Your task to perform on an android device: uninstall "PlayWell" Image 0: 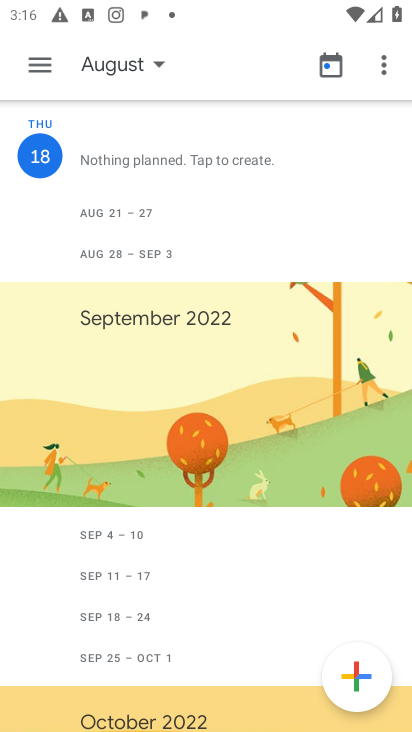
Step 0: press home button
Your task to perform on an android device: uninstall "PlayWell" Image 1: 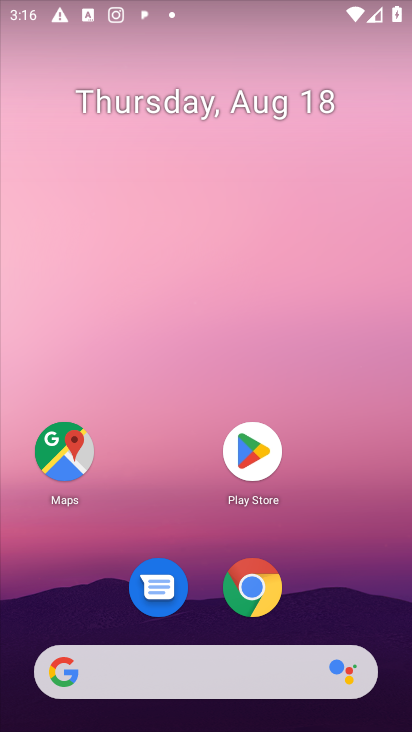
Step 1: click (251, 461)
Your task to perform on an android device: uninstall "PlayWell" Image 2: 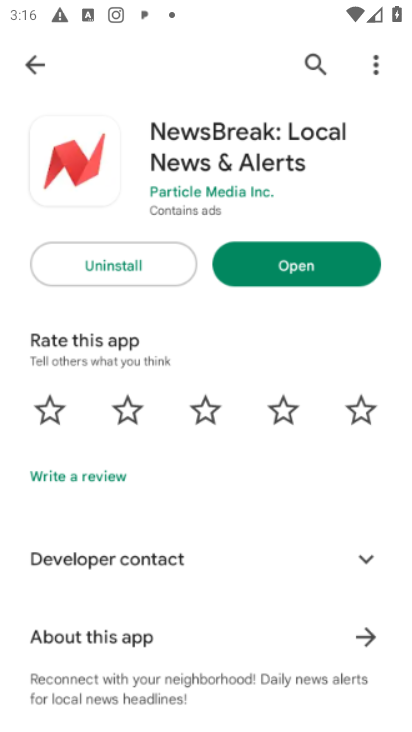
Step 2: click (251, 462)
Your task to perform on an android device: uninstall "PlayWell" Image 3: 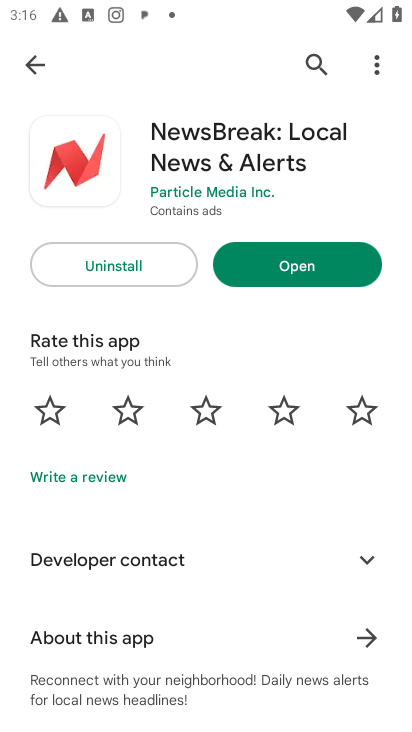
Step 3: click (319, 56)
Your task to perform on an android device: uninstall "PlayWell" Image 4: 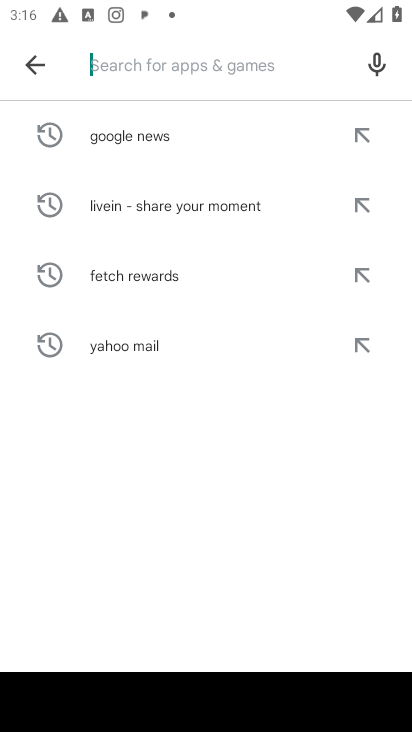
Step 4: type "PlayWell"
Your task to perform on an android device: uninstall "PlayWell" Image 5: 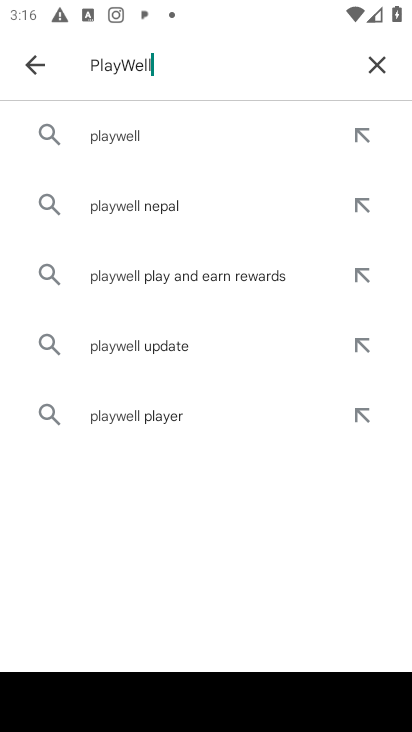
Step 5: click (134, 135)
Your task to perform on an android device: uninstall "PlayWell" Image 6: 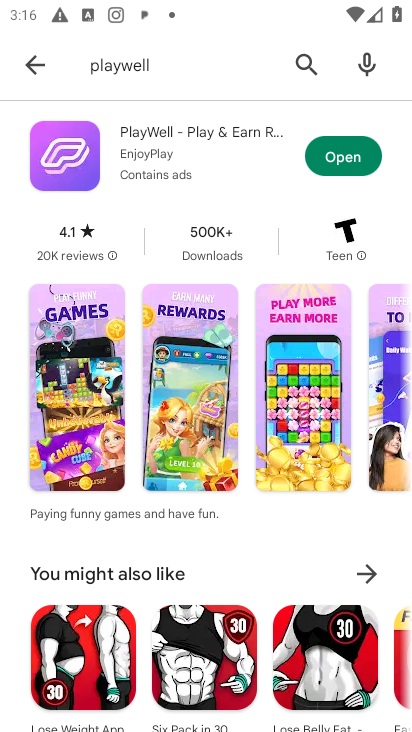
Step 6: click (155, 159)
Your task to perform on an android device: uninstall "PlayWell" Image 7: 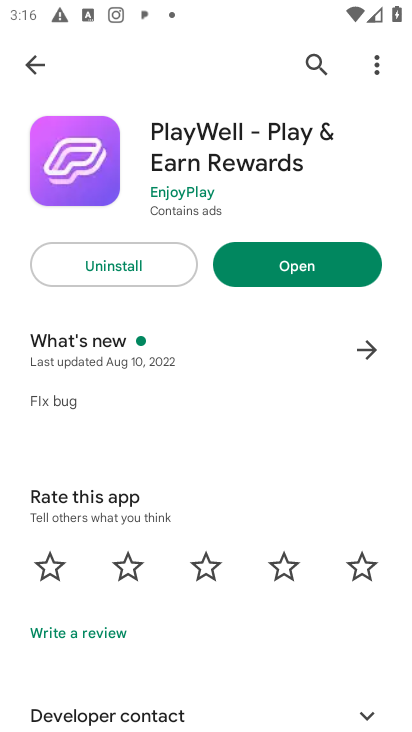
Step 7: click (147, 269)
Your task to perform on an android device: uninstall "PlayWell" Image 8: 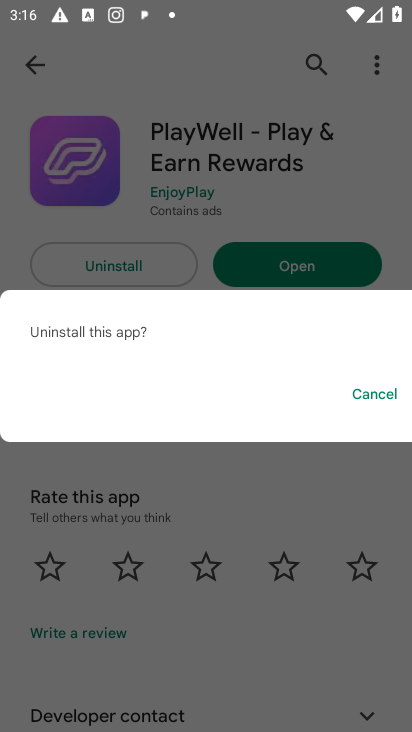
Step 8: click (344, 400)
Your task to perform on an android device: uninstall "PlayWell" Image 9: 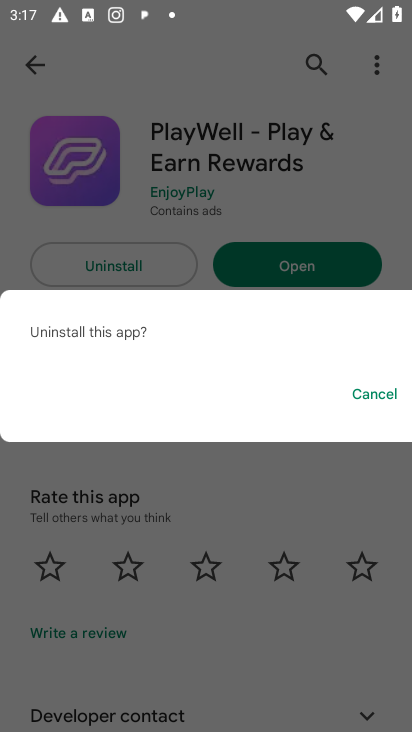
Step 9: task complete